Your task to perform on an android device: Go to notification settings Image 0: 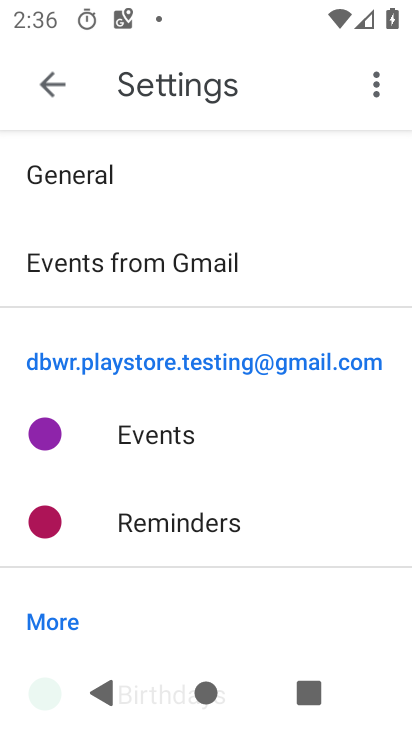
Step 0: press home button
Your task to perform on an android device: Go to notification settings Image 1: 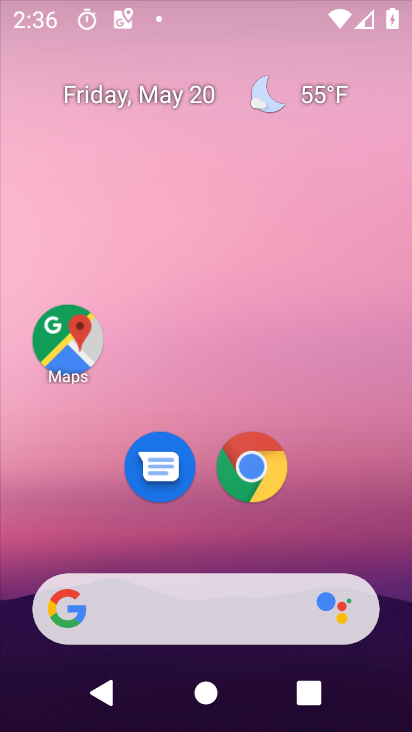
Step 1: drag from (232, 506) to (209, 0)
Your task to perform on an android device: Go to notification settings Image 2: 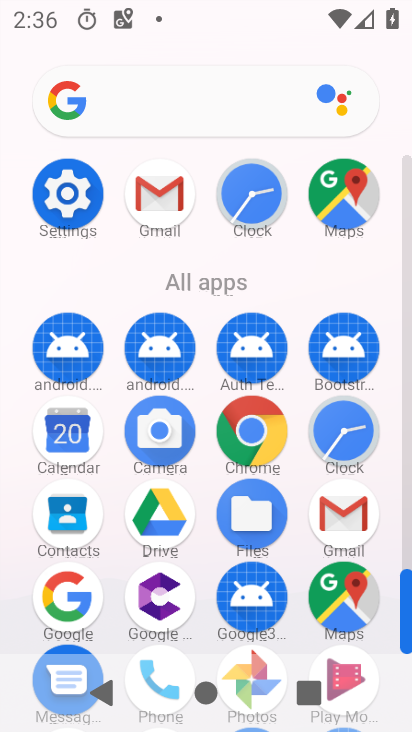
Step 2: click (56, 187)
Your task to perform on an android device: Go to notification settings Image 3: 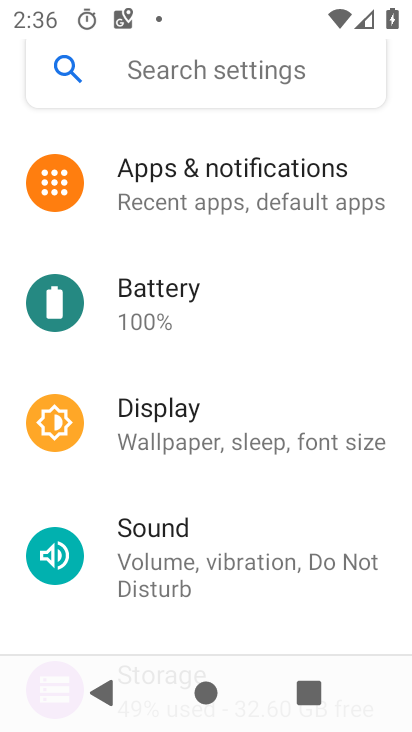
Step 3: click (217, 213)
Your task to perform on an android device: Go to notification settings Image 4: 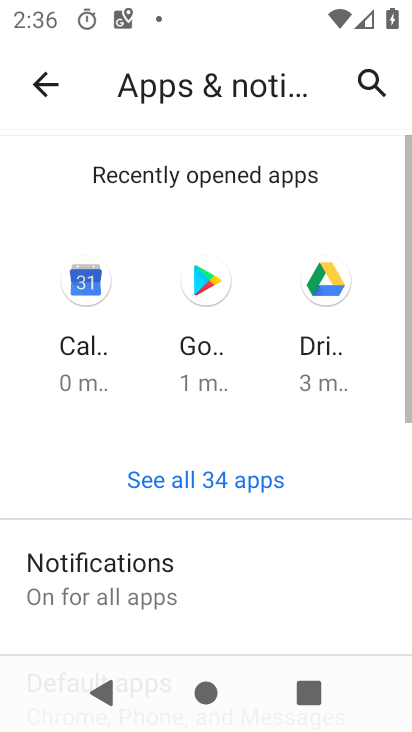
Step 4: click (117, 589)
Your task to perform on an android device: Go to notification settings Image 5: 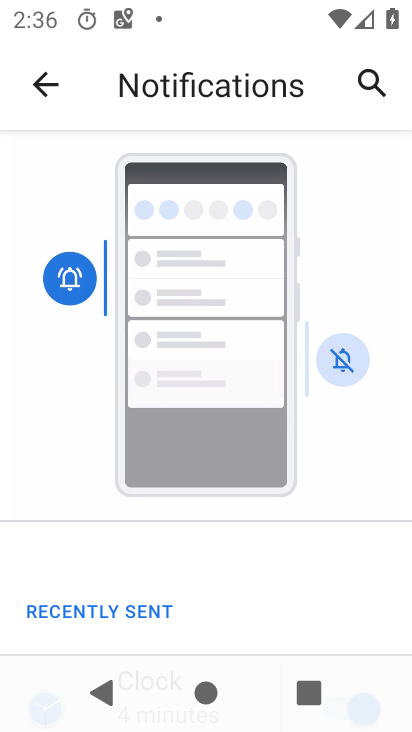
Step 5: task complete